Your task to perform on an android device: turn pop-ups off in chrome Image 0: 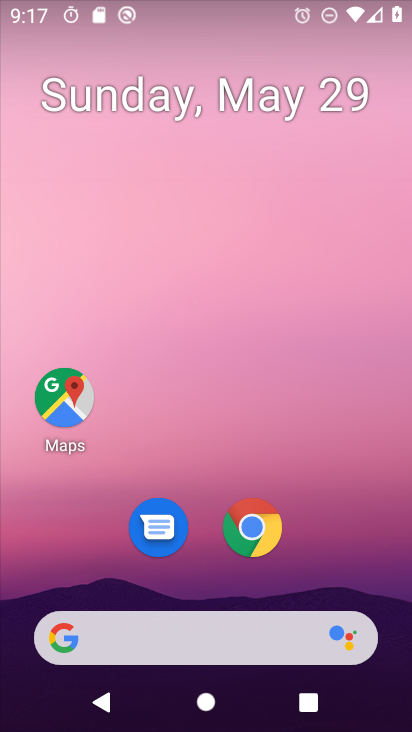
Step 0: drag from (408, 660) to (323, 96)
Your task to perform on an android device: turn pop-ups off in chrome Image 1: 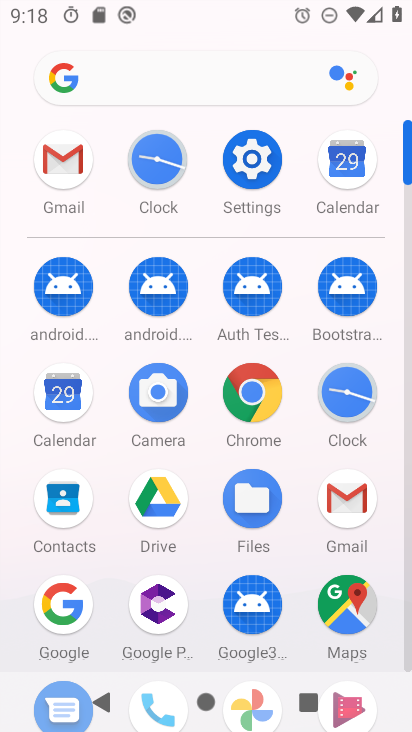
Step 1: click (270, 397)
Your task to perform on an android device: turn pop-ups off in chrome Image 2: 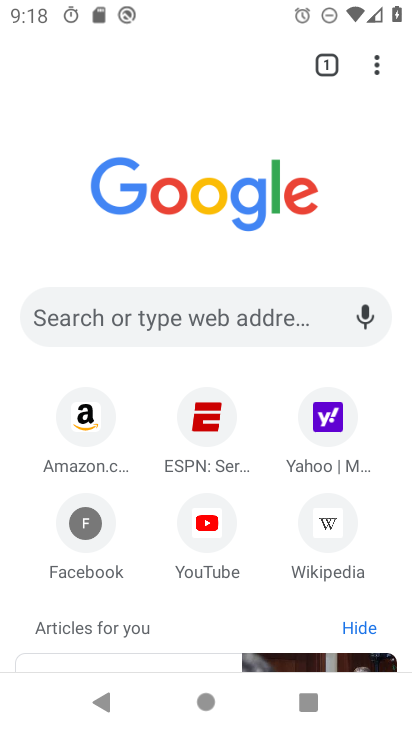
Step 2: click (373, 49)
Your task to perform on an android device: turn pop-ups off in chrome Image 3: 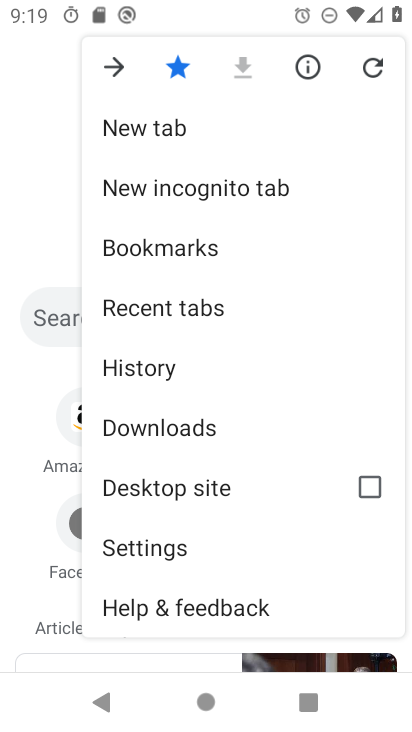
Step 3: click (210, 558)
Your task to perform on an android device: turn pop-ups off in chrome Image 4: 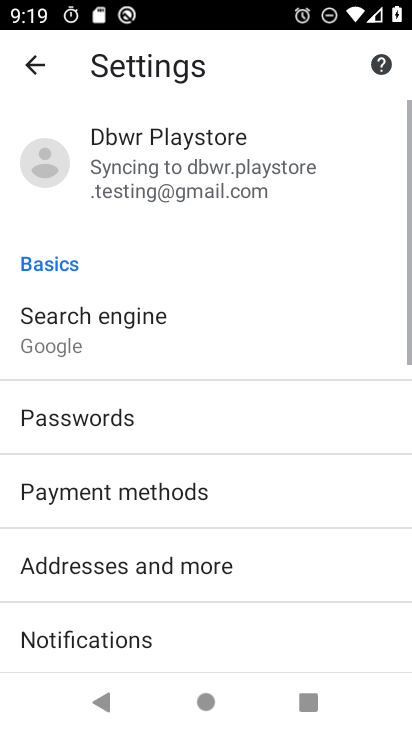
Step 4: drag from (161, 609) to (162, 44)
Your task to perform on an android device: turn pop-ups off in chrome Image 5: 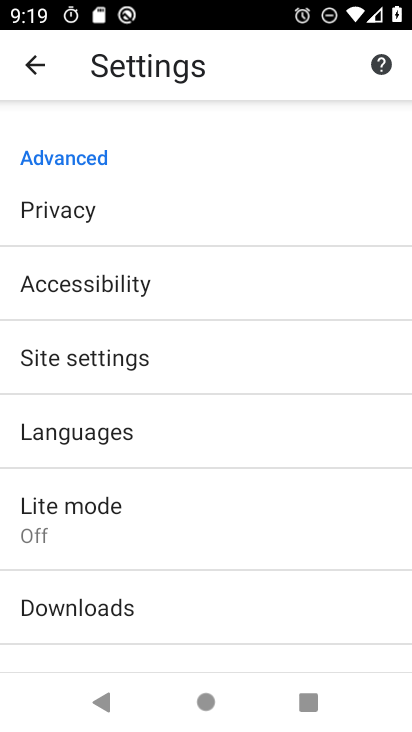
Step 5: click (156, 353)
Your task to perform on an android device: turn pop-ups off in chrome Image 6: 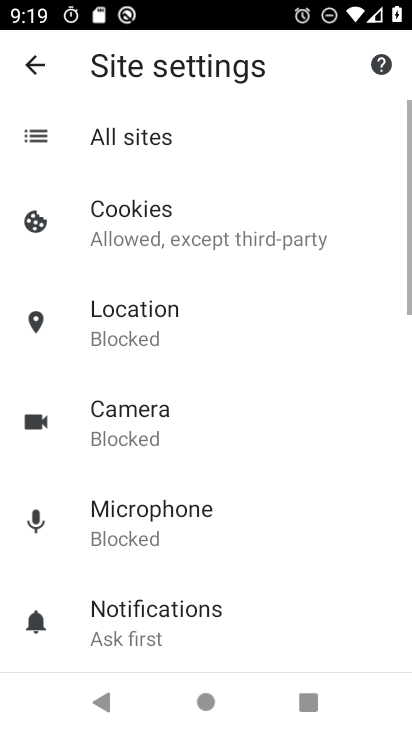
Step 6: drag from (172, 615) to (170, 143)
Your task to perform on an android device: turn pop-ups off in chrome Image 7: 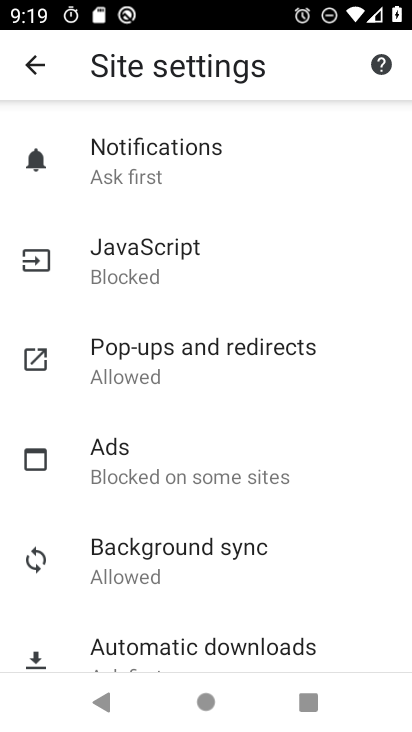
Step 7: click (197, 357)
Your task to perform on an android device: turn pop-ups off in chrome Image 8: 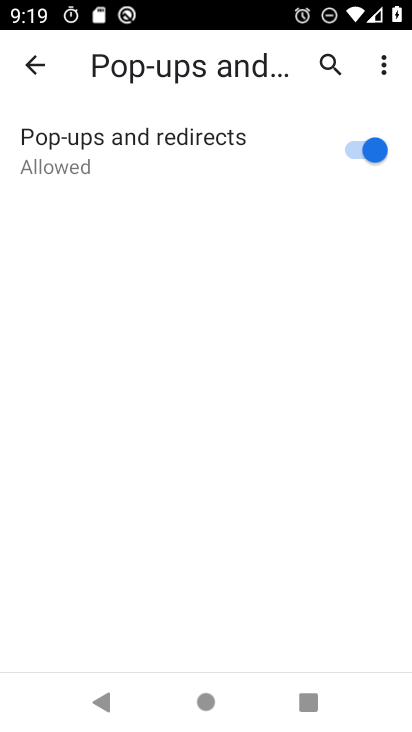
Step 8: click (370, 114)
Your task to perform on an android device: turn pop-ups off in chrome Image 9: 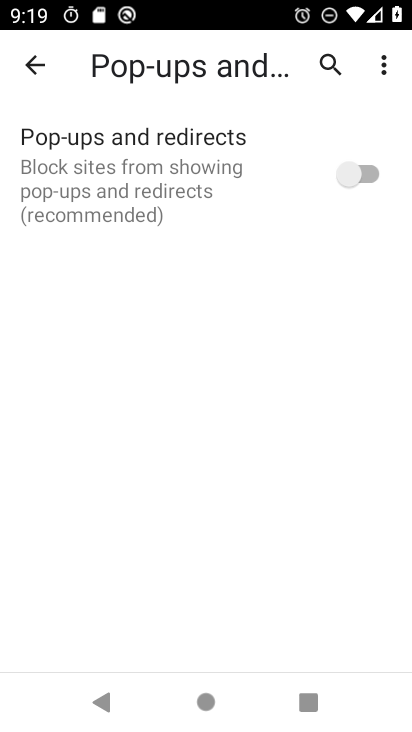
Step 9: task complete